Your task to perform on an android device: What's the weather going to be this weekend? Image 0: 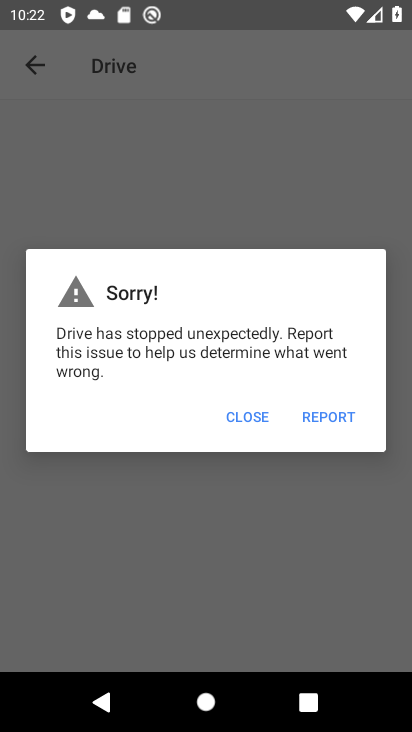
Step 0: press home button
Your task to perform on an android device: What's the weather going to be this weekend? Image 1: 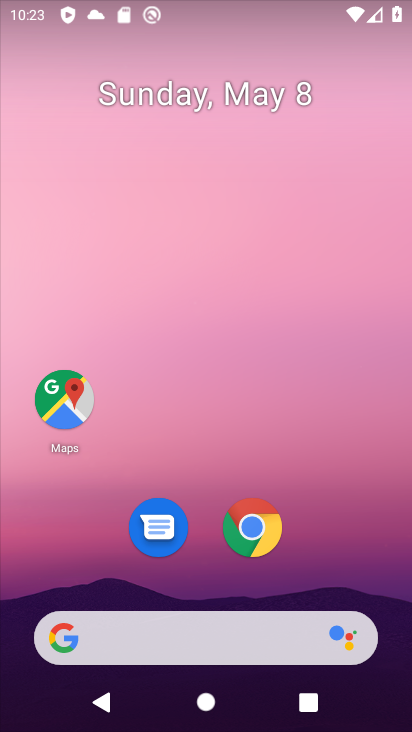
Step 1: click (259, 541)
Your task to perform on an android device: What's the weather going to be this weekend? Image 2: 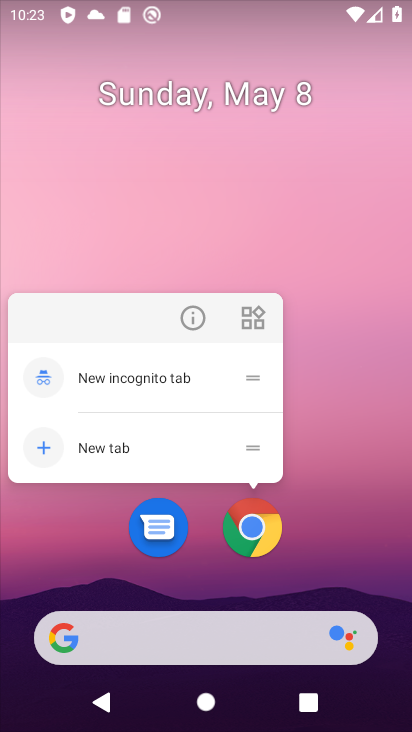
Step 2: click (253, 539)
Your task to perform on an android device: What's the weather going to be this weekend? Image 3: 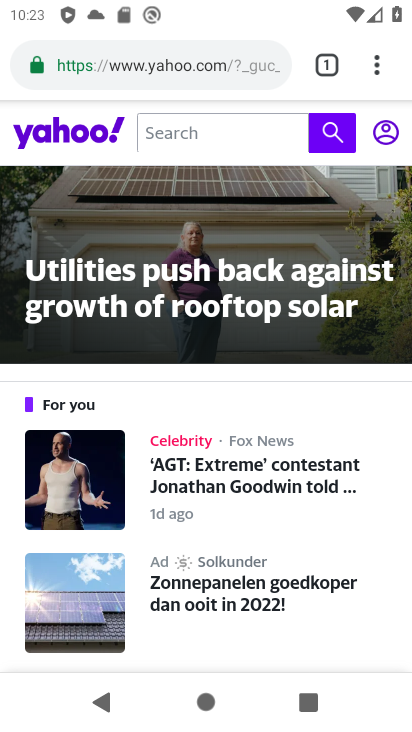
Step 3: click (242, 65)
Your task to perform on an android device: What's the weather going to be this weekend? Image 4: 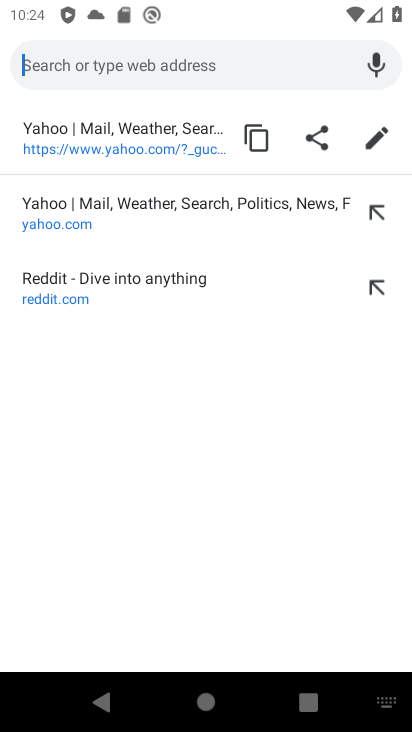
Step 4: type "whats the weather going to be this weekend"
Your task to perform on an android device: What's the weather going to be this weekend? Image 5: 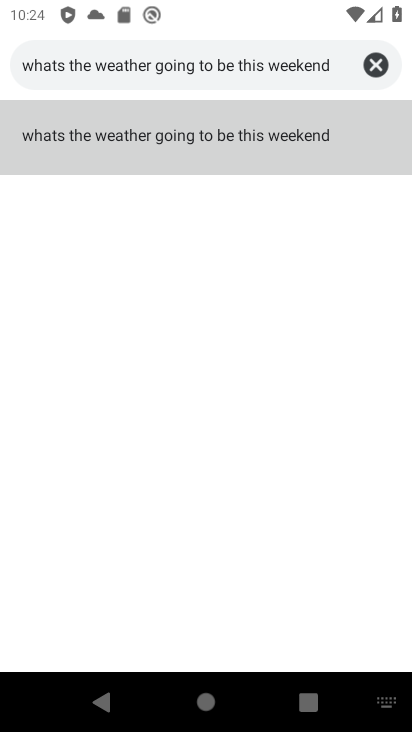
Step 5: click (236, 147)
Your task to perform on an android device: What's the weather going to be this weekend? Image 6: 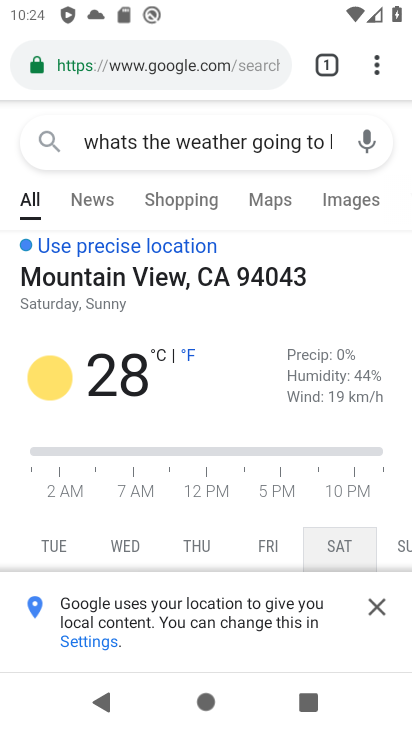
Step 6: task complete